Your task to perform on an android device: change timer sound Image 0: 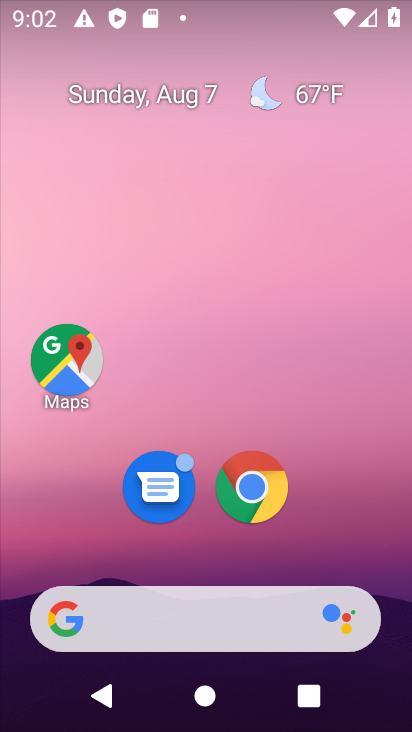
Step 0: drag from (396, 700) to (331, 100)
Your task to perform on an android device: change timer sound Image 1: 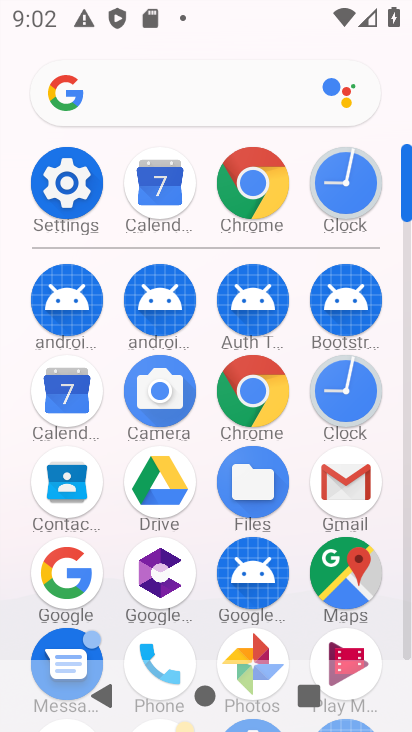
Step 1: click (69, 190)
Your task to perform on an android device: change timer sound Image 2: 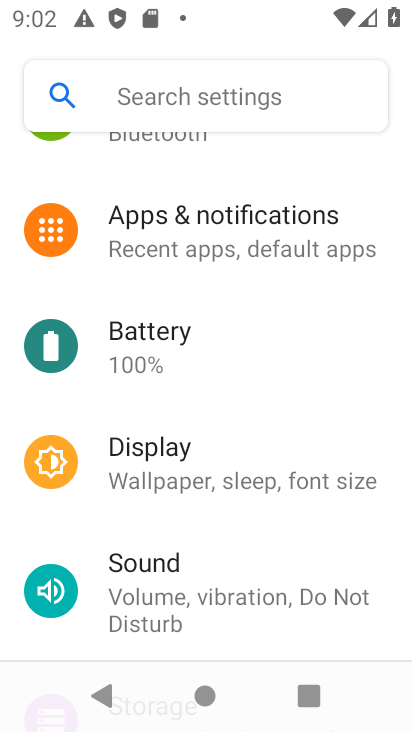
Step 2: press home button
Your task to perform on an android device: change timer sound Image 3: 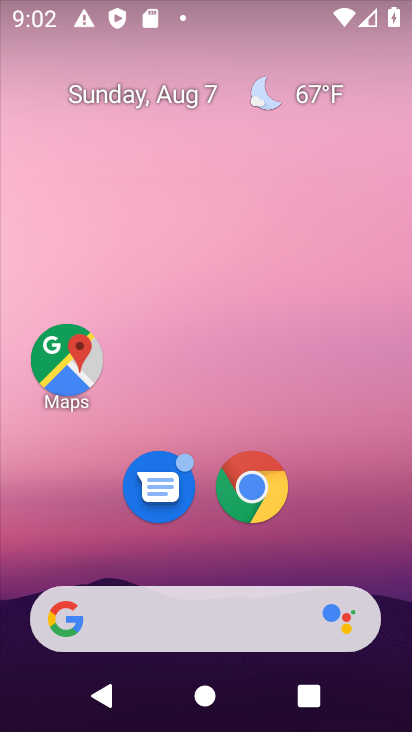
Step 3: drag from (393, 688) to (325, 88)
Your task to perform on an android device: change timer sound Image 4: 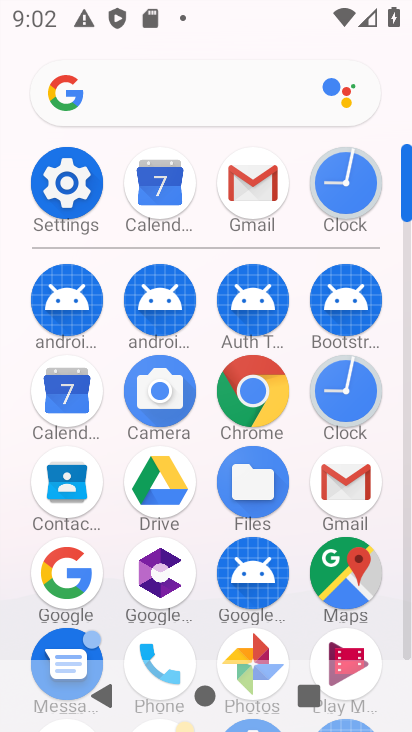
Step 4: click (355, 398)
Your task to perform on an android device: change timer sound Image 5: 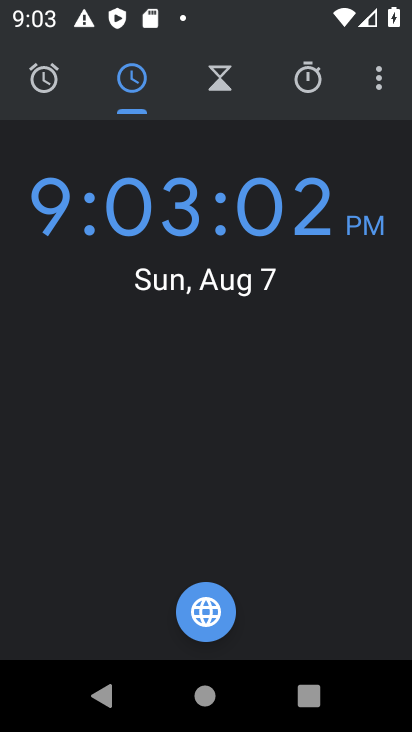
Step 5: click (374, 84)
Your task to perform on an android device: change timer sound Image 6: 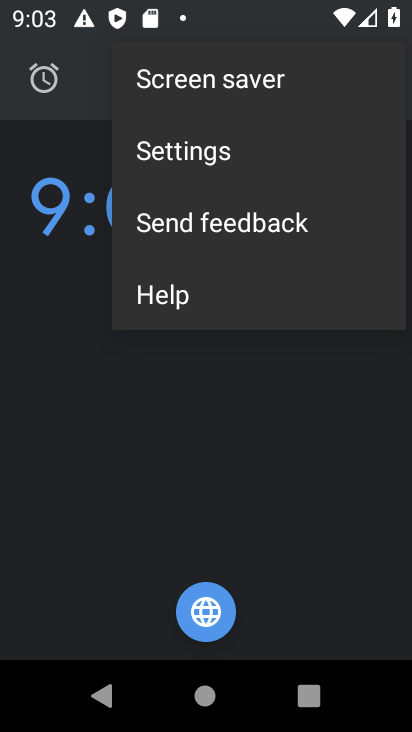
Step 6: click (206, 137)
Your task to perform on an android device: change timer sound Image 7: 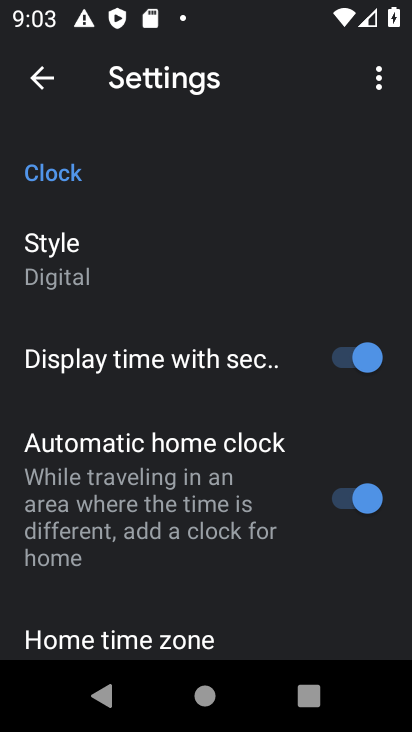
Step 7: drag from (252, 499) to (236, 201)
Your task to perform on an android device: change timer sound Image 8: 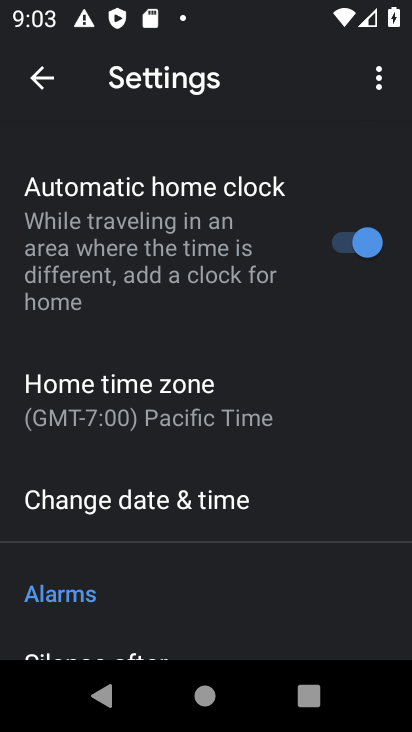
Step 8: drag from (278, 604) to (292, 276)
Your task to perform on an android device: change timer sound Image 9: 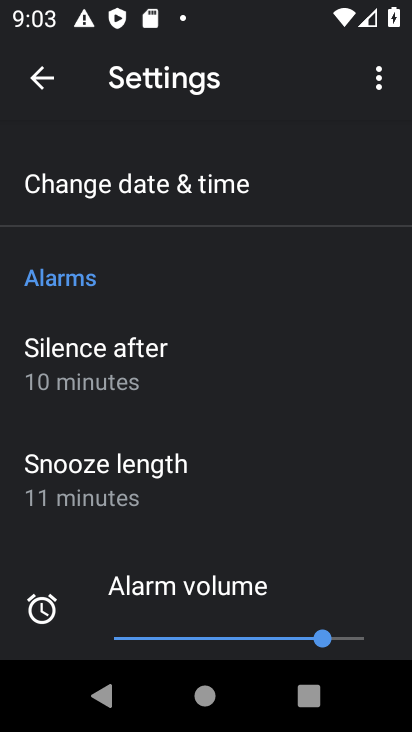
Step 9: drag from (282, 550) to (266, 239)
Your task to perform on an android device: change timer sound Image 10: 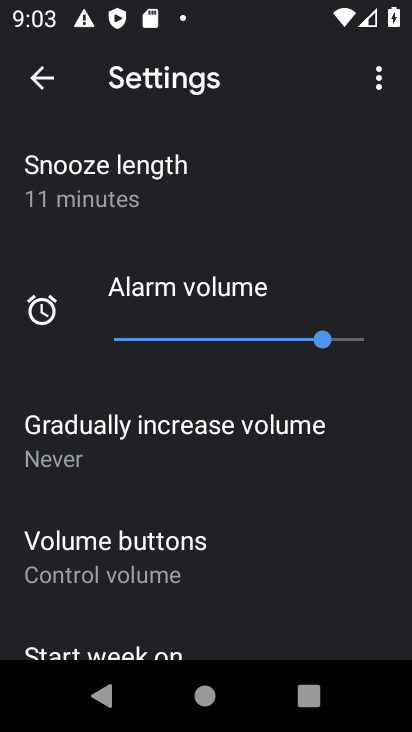
Step 10: drag from (278, 604) to (314, 185)
Your task to perform on an android device: change timer sound Image 11: 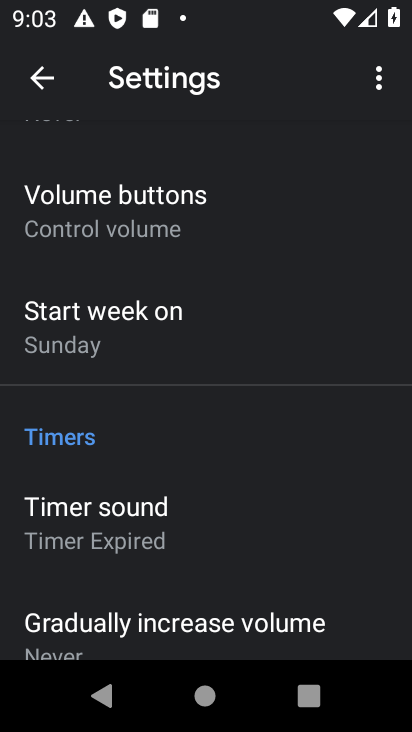
Step 11: click (117, 510)
Your task to perform on an android device: change timer sound Image 12: 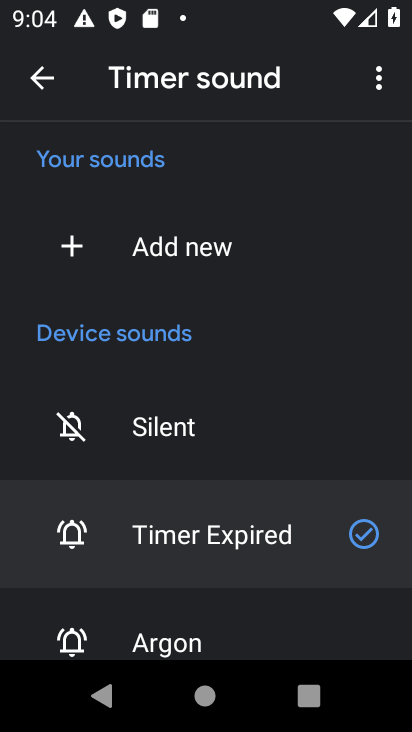
Step 12: click (125, 640)
Your task to perform on an android device: change timer sound Image 13: 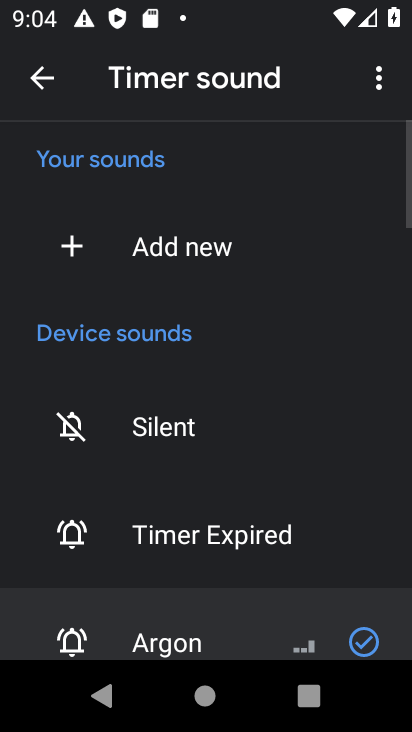
Step 13: task complete